Your task to perform on an android device: Toggle the flashlight Image 0: 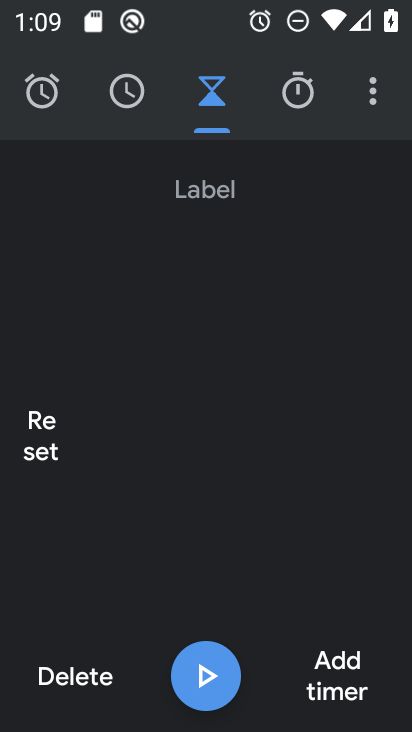
Step 0: press home button
Your task to perform on an android device: Toggle the flashlight Image 1: 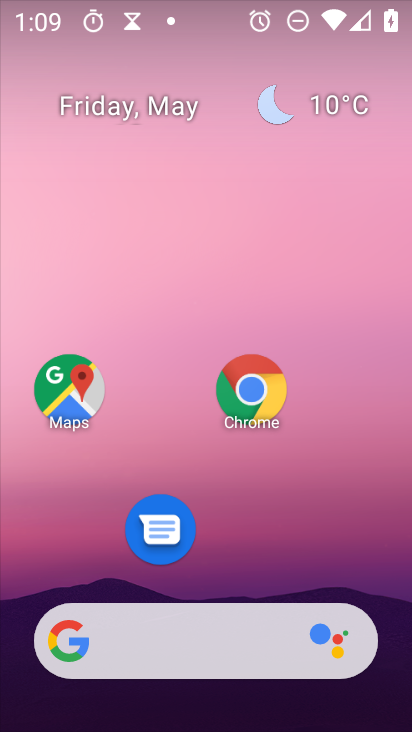
Step 1: task complete